Your task to perform on an android device: Open calendar and show me the fourth week of next month Image 0: 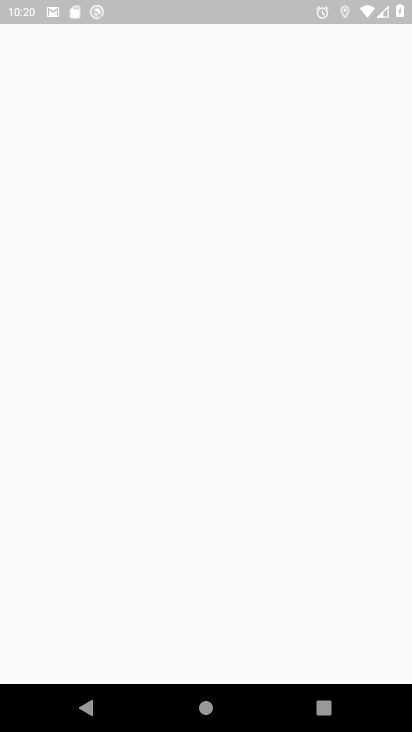
Step 0: press back button
Your task to perform on an android device: Open calendar and show me the fourth week of next month Image 1: 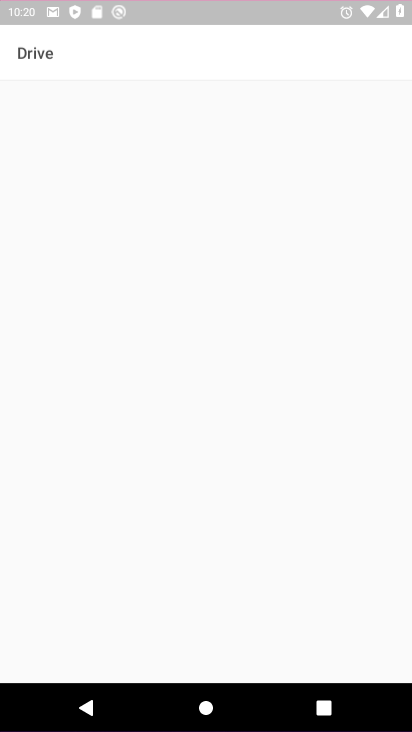
Step 1: press back button
Your task to perform on an android device: Open calendar and show me the fourth week of next month Image 2: 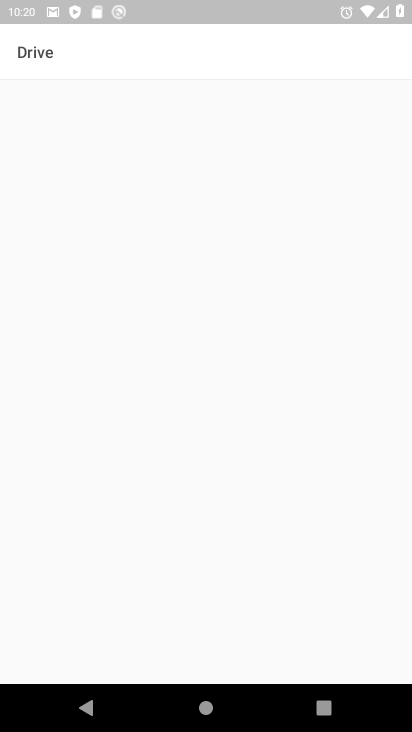
Step 2: press back button
Your task to perform on an android device: Open calendar and show me the fourth week of next month Image 3: 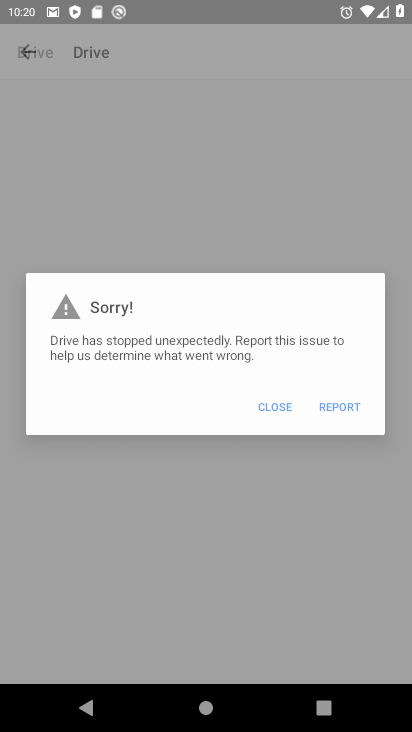
Step 3: press back button
Your task to perform on an android device: Open calendar and show me the fourth week of next month Image 4: 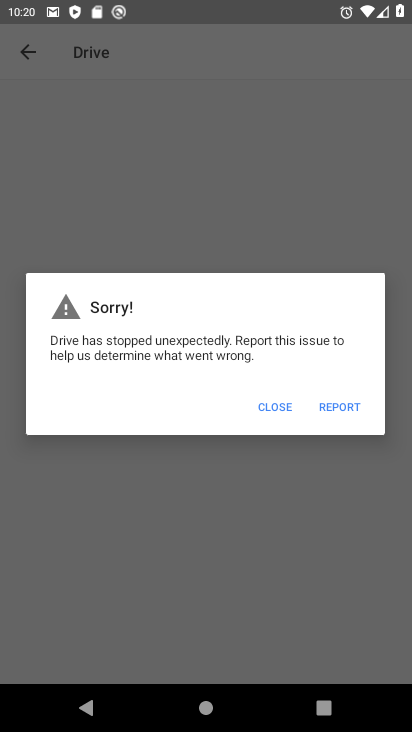
Step 4: click (275, 403)
Your task to perform on an android device: Open calendar and show me the fourth week of next month Image 5: 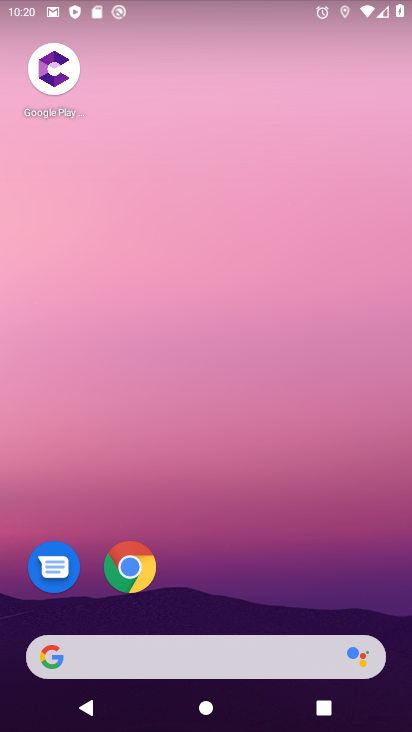
Step 5: drag from (210, 729) to (191, 6)
Your task to perform on an android device: Open calendar and show me the fourth week of next month Image 6: 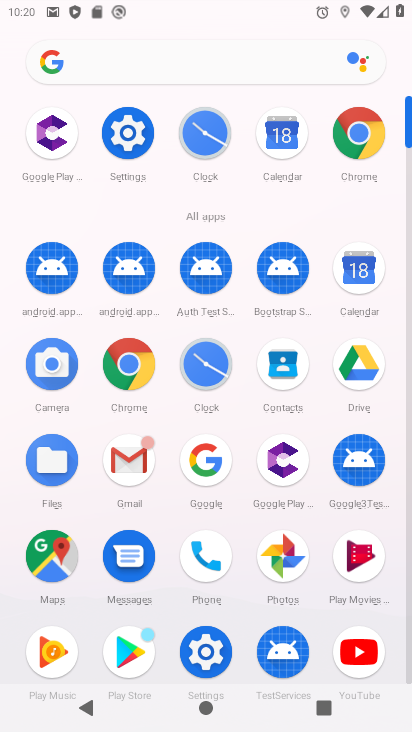
Step 6: click (364, 273)
Your task to perform on an android device: Open calendar and show me the fourth week of next month Image 7: 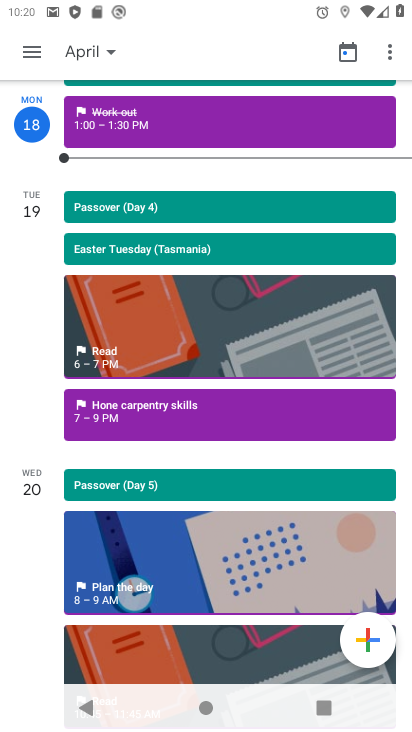
Step 7: click (83, 54)
Your task to perform on an android device: Open calendar and show me the fourth week of next month Image 8: 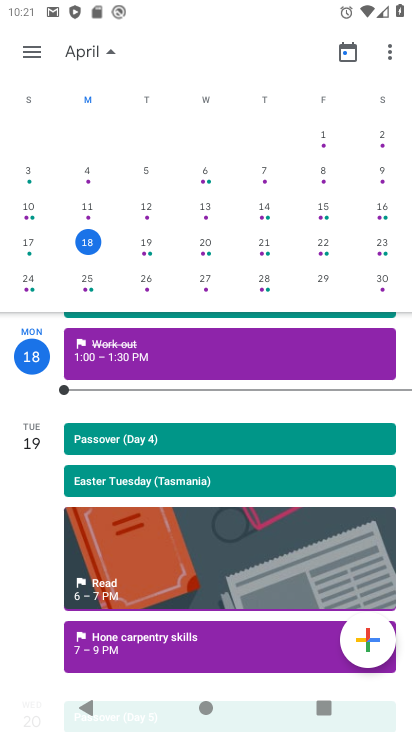
Step 8: drag from (348, 232) to (6, 217)
Your task to perform on an android device: Open calendar and show me the fourth week of next month Image 9: 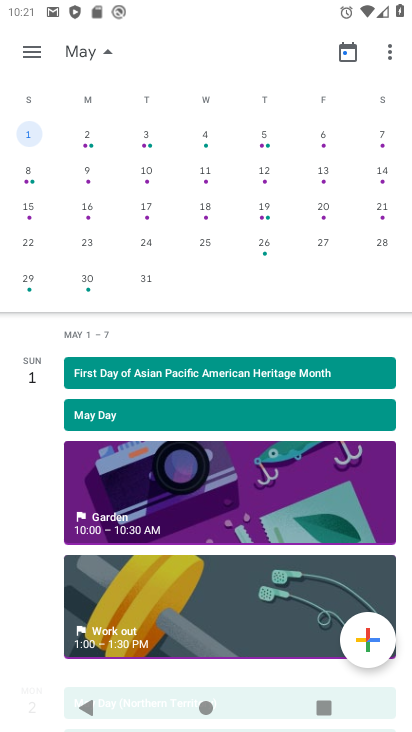
Step 9: click (84, 240)
Your task to perform on an android device: Open calendar and show me the fourth week of next month Image 10: 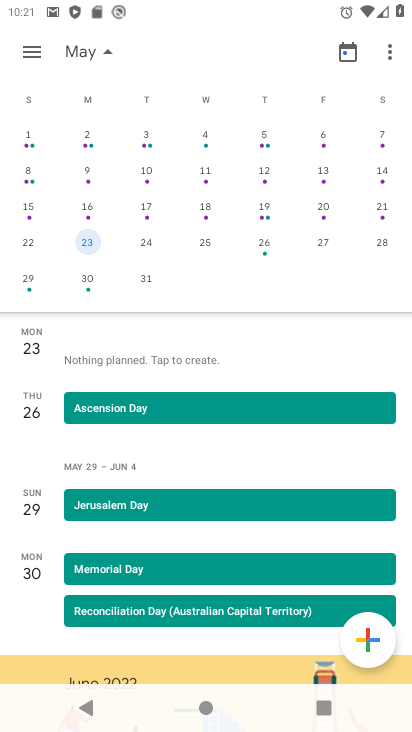
Step 10: task complete